Your task to perform on an android device: find which apps use the phone's location Image 0: 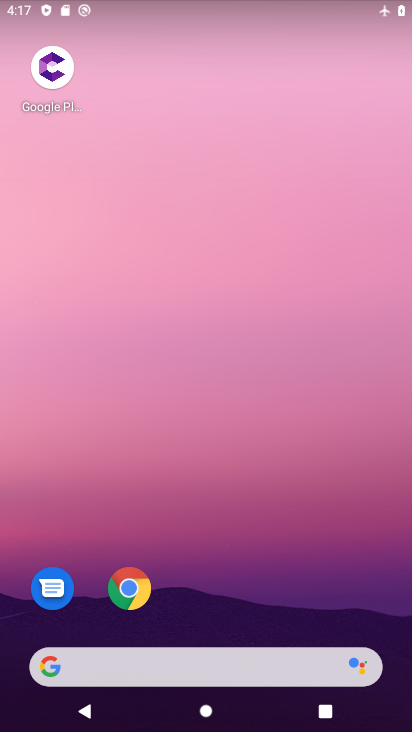
Step 0: drag from (74, 616) to (93, 53)
Your task to perform on an android device: find which apps use the phone's location Image 1: 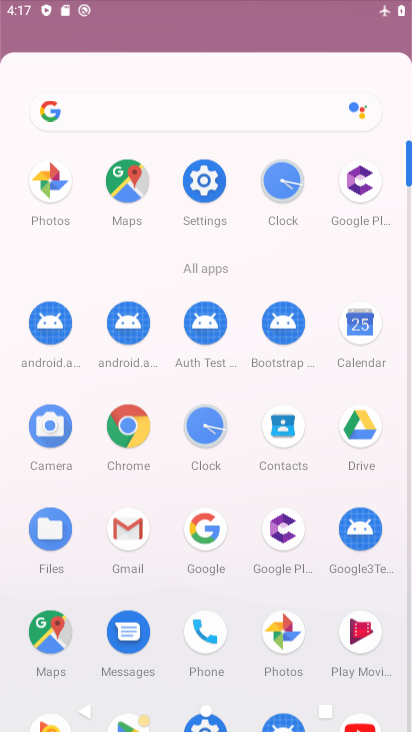
Step 1: drag from (206, 525) to (218, 147)
Your task to perform on an android device: find which apps use the phone's location Image 2: 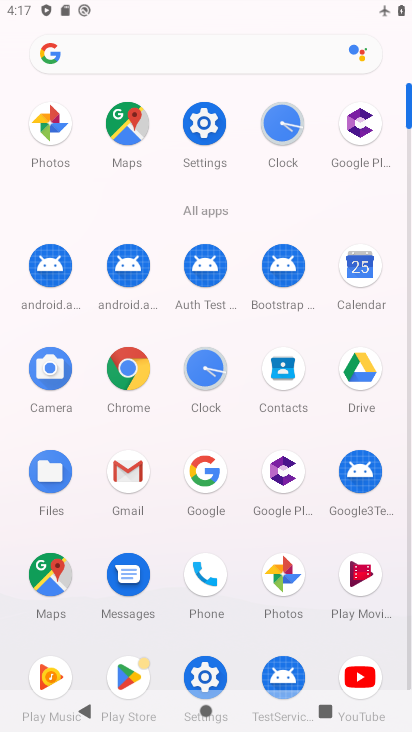
Step 2: click (206, 124)
Your task to perform on an android device: find which apps use the phone's location Image 3: 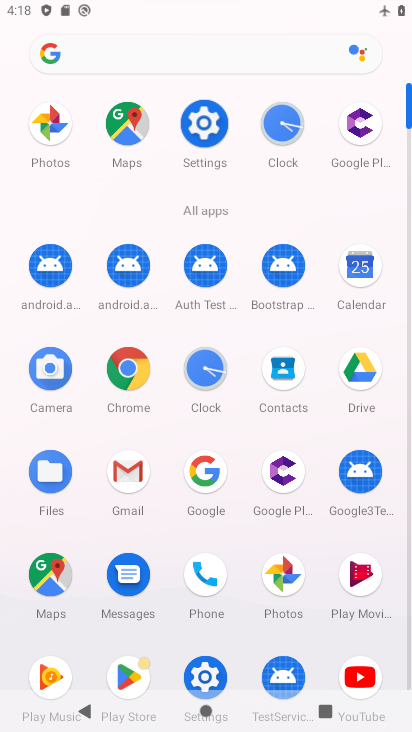
Step 3: click (208, 127)
Your task to perform on an android device: find which apps use the phone's location Image 4: 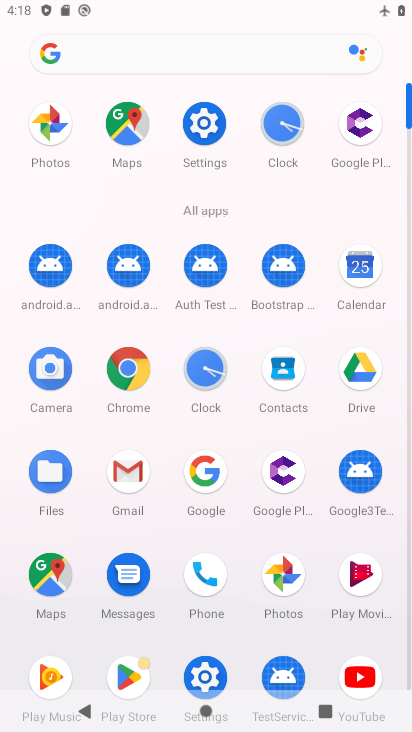
Step 4: click (197, 139)
Your task to perform on an android device: find which apps use the phone's location Image 5: 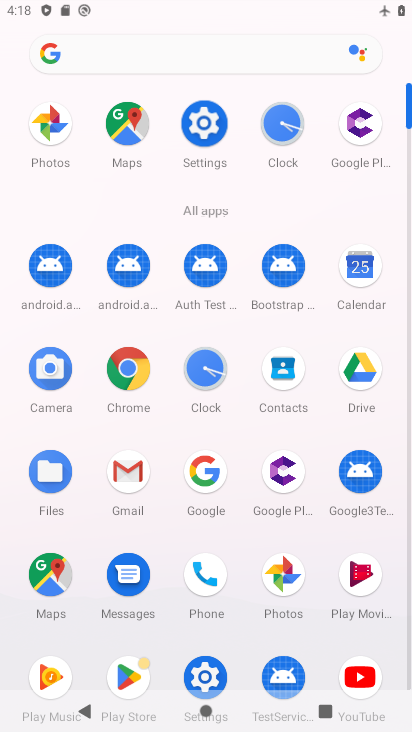
Step 5: click (196, 137)
Your task to perform on an android device: find which apps use the phone's location Image 6: 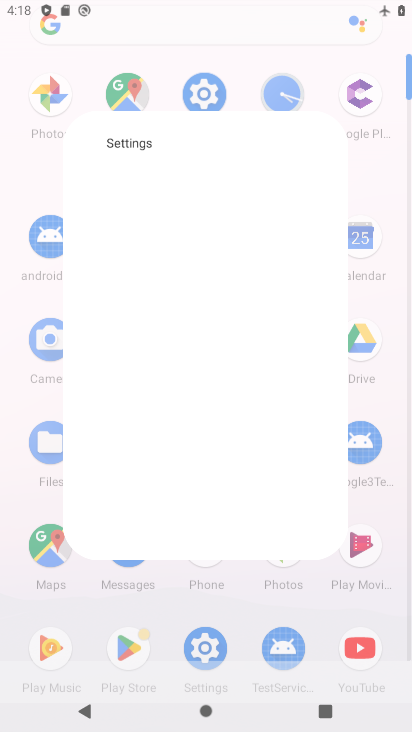
Step 6: click (196, 136)
Your task to perform on an android device: find which apps use the phone's location Image 7: 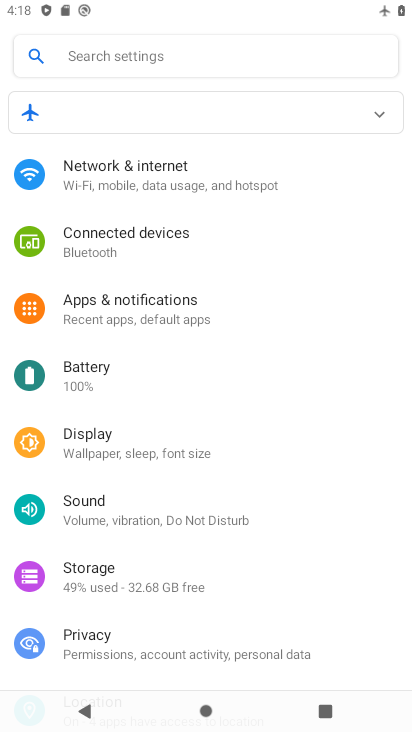
Step 7: drag from (61, 411) to (128, 307)
Your task to perform on an android device: find which apps use the phone's location Image 8: 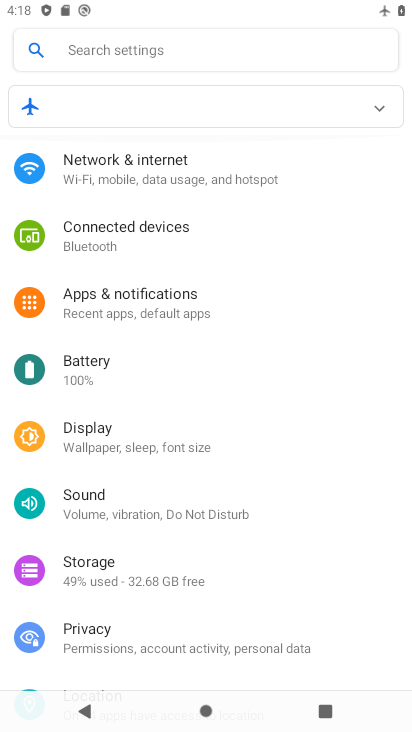
Step 8: drag from (131, 548) to (233, 209)
Your task to perform on an android device: find which apps use the phone's location Image 9: 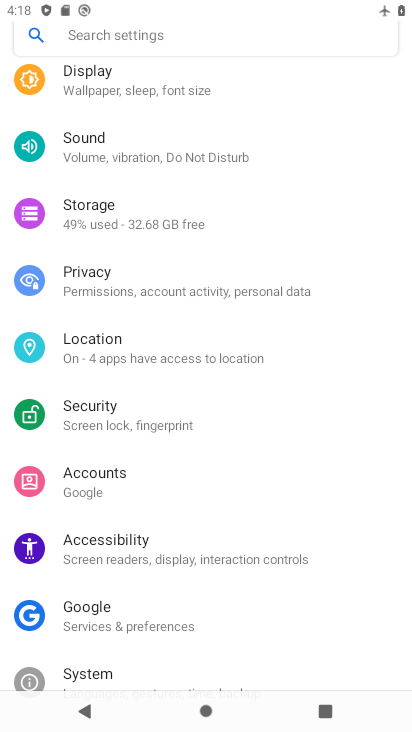
Step 9: click (97, 338)
Your task to perform on an android device: find which apps use the phone's location Image 10: 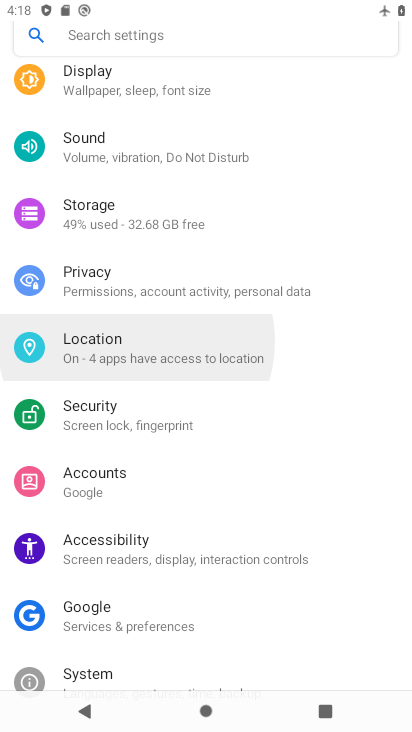
Step 10: click (106, 343)
Your task to perform on an android device: find which apps use the phone's location Image 11: 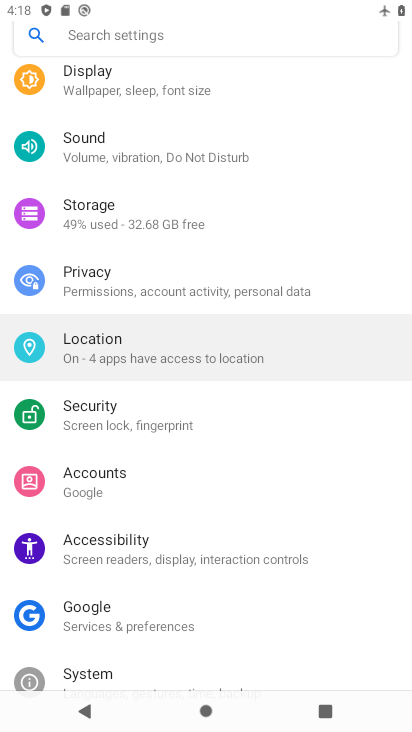
Step 11: click (124, 351)
Your task to perform on an android device: find which apps use the phone's location Image 12: 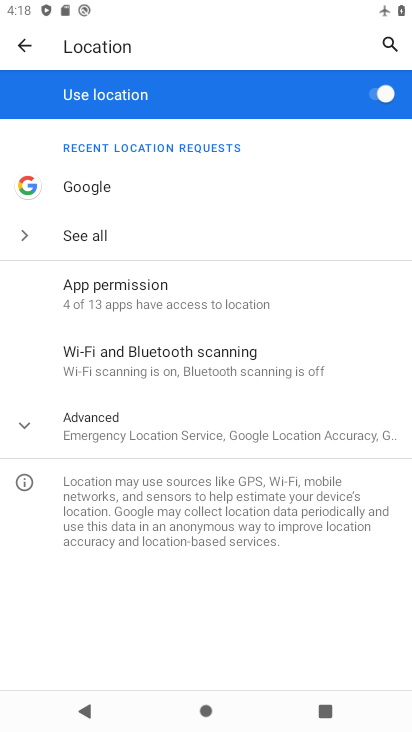
Step 12: task complete